Your task to perform on an android device: check battery use Image 0: 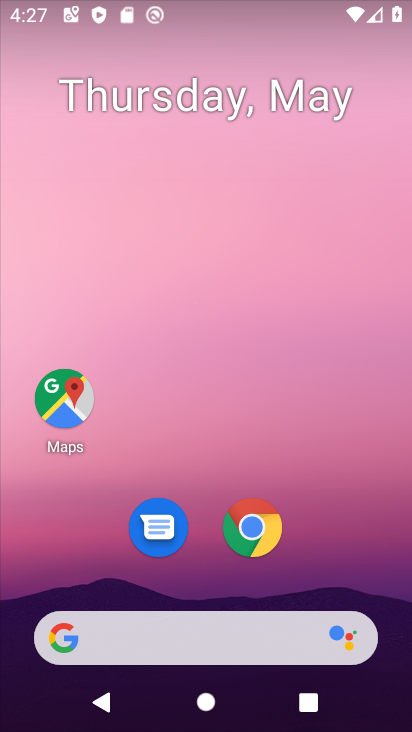
Step 0: drag from (327, 492) to (317, 72)
Your task to perform on an android device: check battery use Image 1: 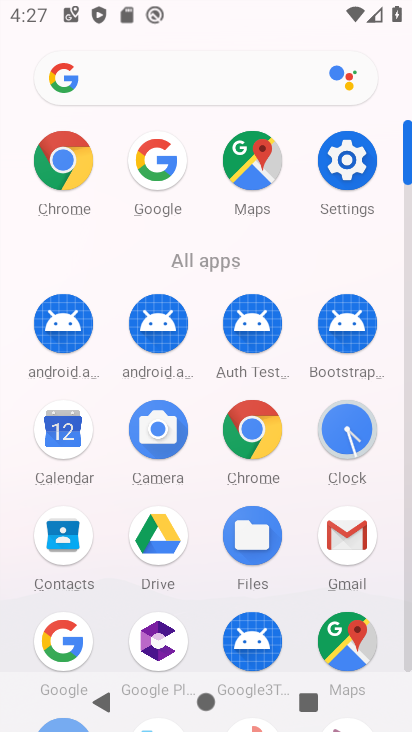
Step 1: click (364, 156)
Your task to perform on an android device: check battery use Image 2: 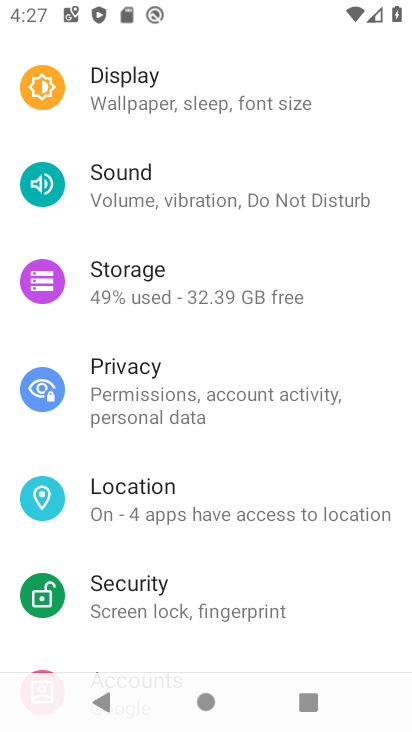
Step 2: drag from (222, 257) to (233, 578)
Your task to perform on an android device: check battery use Image 3: 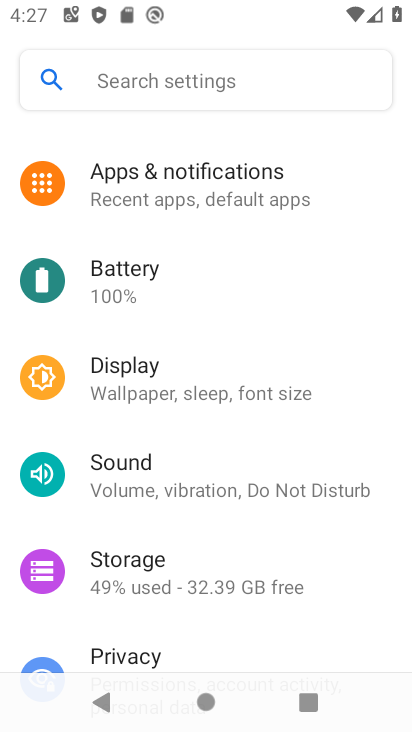
Step 3: click (108, 290)
Your task to perform on an android device: check battery use Image 4: 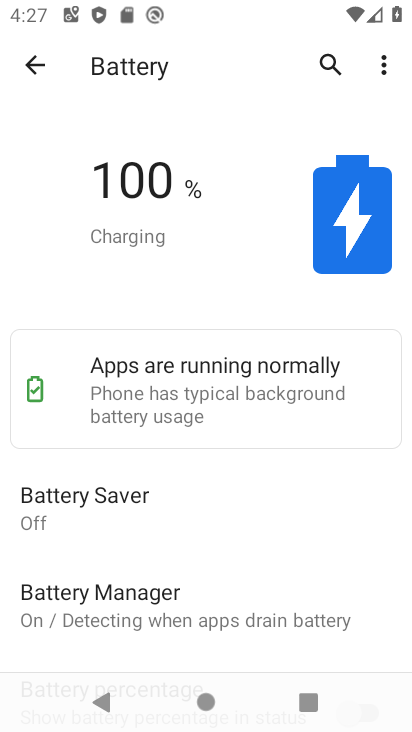
Step 4: task complete